Your task to perform on an android device: change the clock display to digital Image 0: 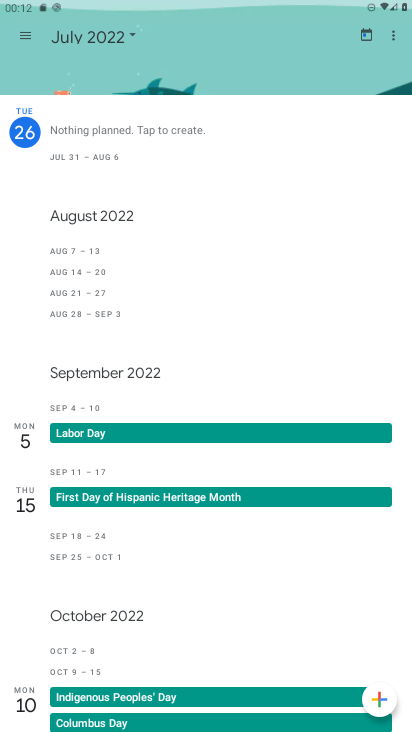
Step 0: press home button
Your task to perform on an android device: change the clock display to digital Image 1: 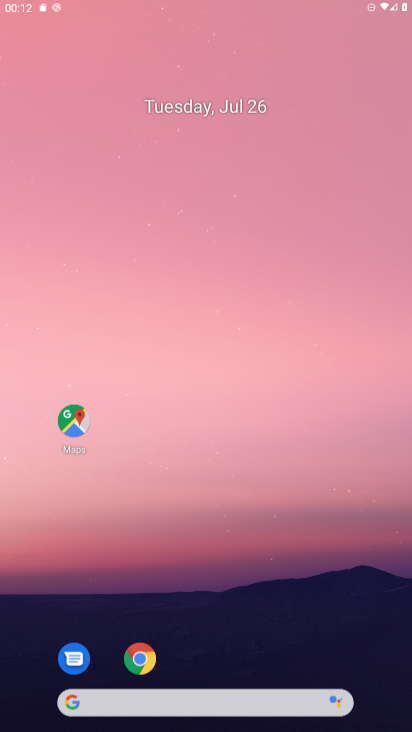
Step 1: drag from (236, 635) to (224, 37)
Your task to perform on an android device: change the clock display to digital Image 2: 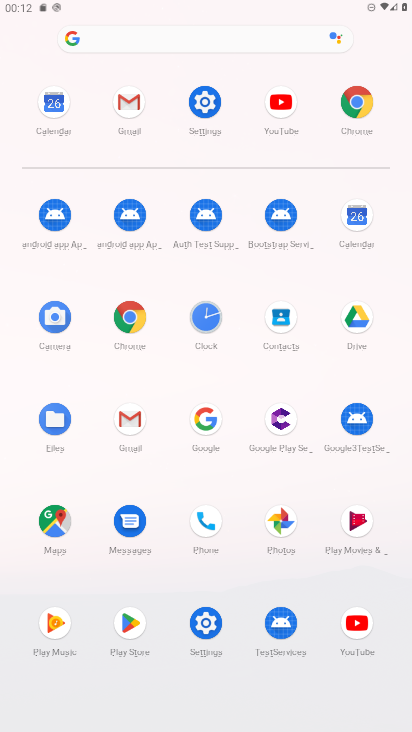
Step 2: click (218, 306)
Your task to perform on an android device: change the clock display to digital Image 3: 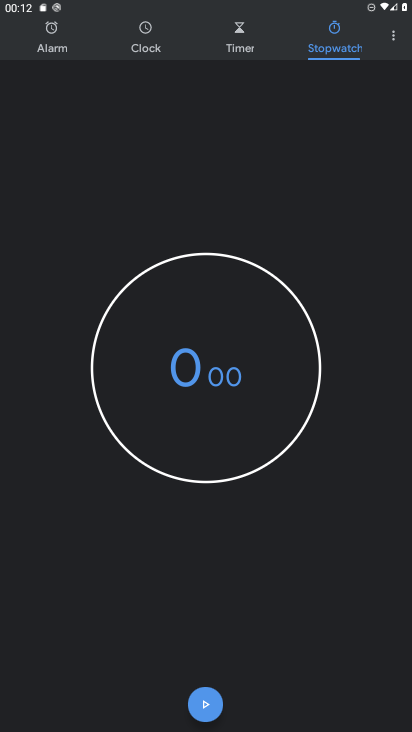
Step 3: click (386, 41)
Your task to perform on an android device: change the clock display to digital Image 4: 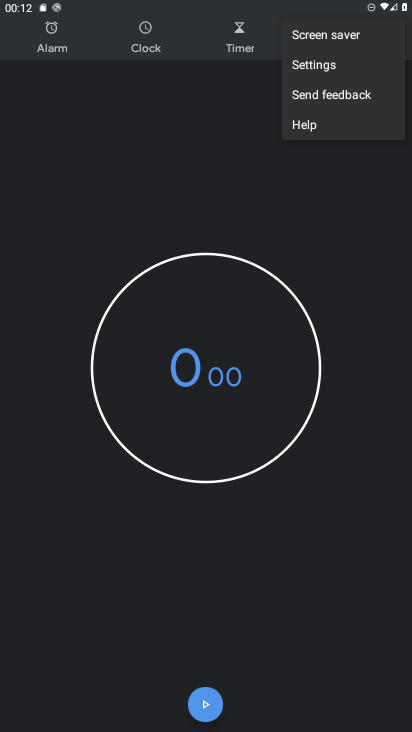
Step 4: click (339, 64)
Your task to perform on an android device: change the clock display to digital Image 5: 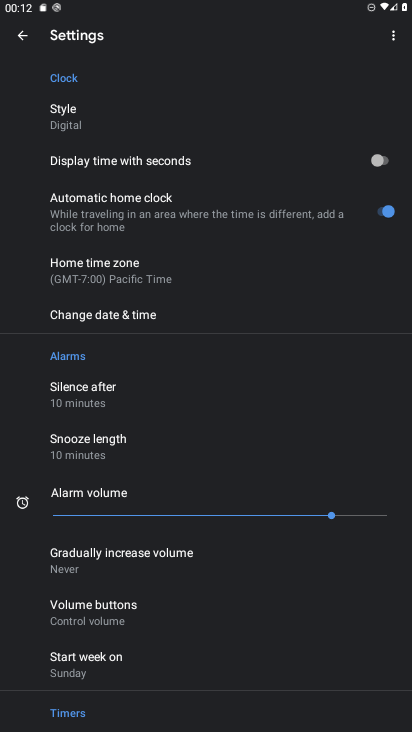
Step 5: click (85, 118)
Your task to perform on an android device: change the clock display to digital Image 6: 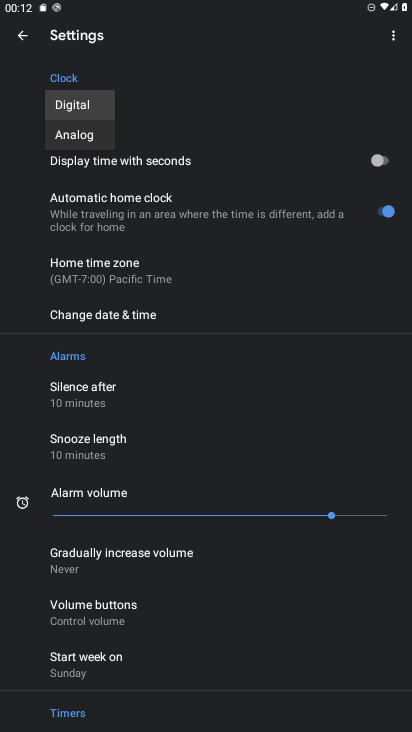
Step 6: click (86, 120)
Your task to perform on an android device: change the clock display to digital Image 7: 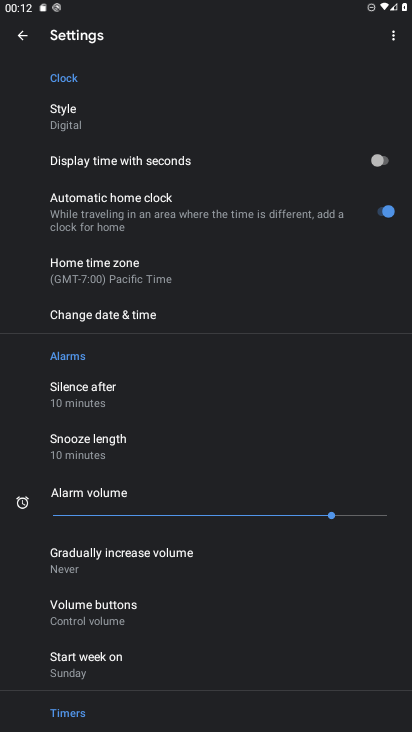
Step 7: task complete